Your task to perform on an android device: star an email in the gmail app Image 0: 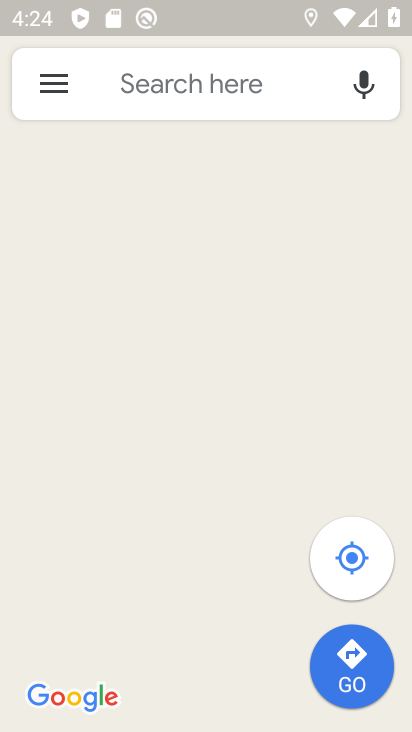
Step 0: press back button
Your task to perform on an android device: star an email in the gmail app Image 1: 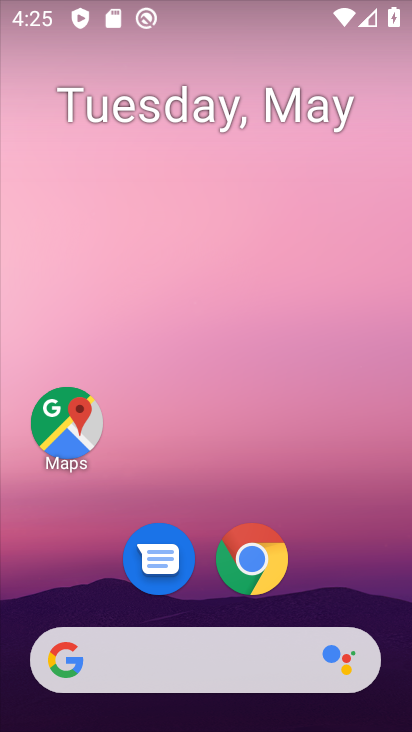
Step 1: drag from (65, 625) to (181, 74)
Your task to perform on an android device: star an email in the gmail app Image 2: 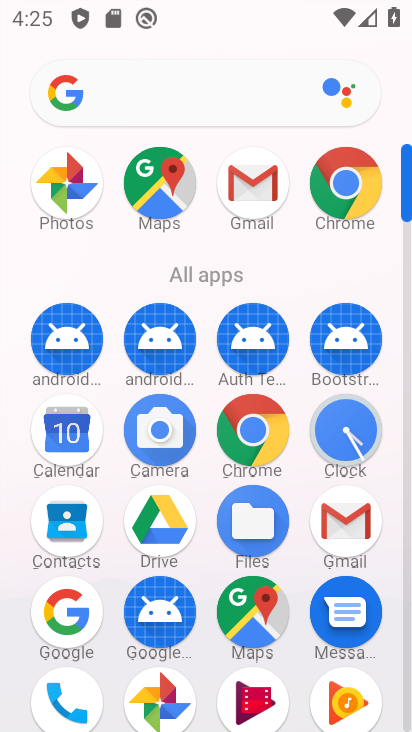
Step 2: click (341, 544)
Your task to perform on an android device: star an email in the gmail app Image 3: 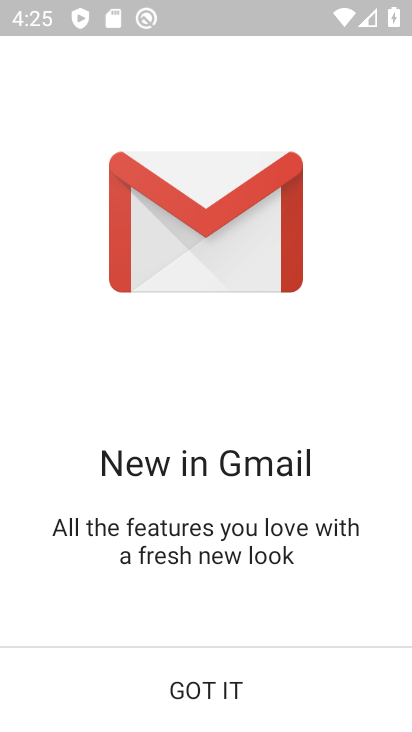
Step 3: click (213, 669)
Your task to perform on an android device: star an email in the gmail app Image 4: 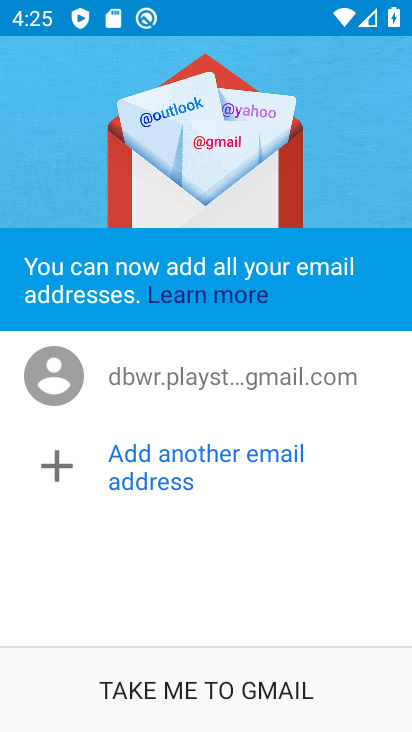
Step 4: click (222, 678)
Your task to perform on an android device: star an email in the gmail app Image 5: 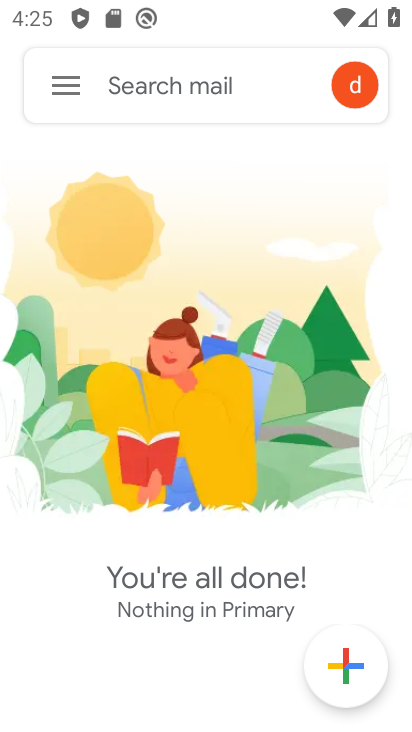
Step 5: click (83, 101)
Your task to perform on an android device: star an email in the gmail app Image 6: 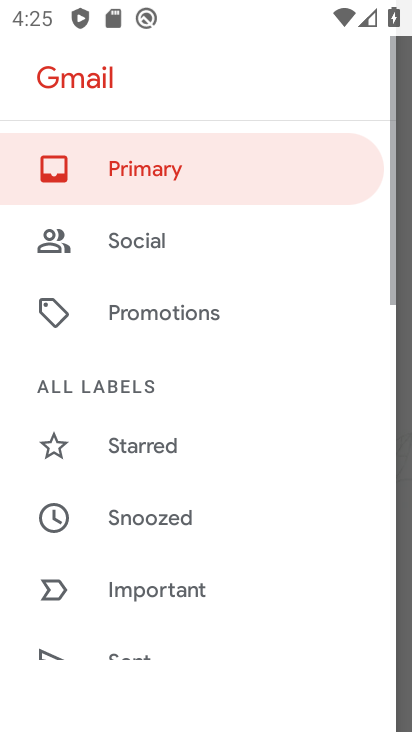
Step 6: drag from (150, 623) to (255, 312)
Your task to perform on an android device: star an email in the gmail app Image 7: 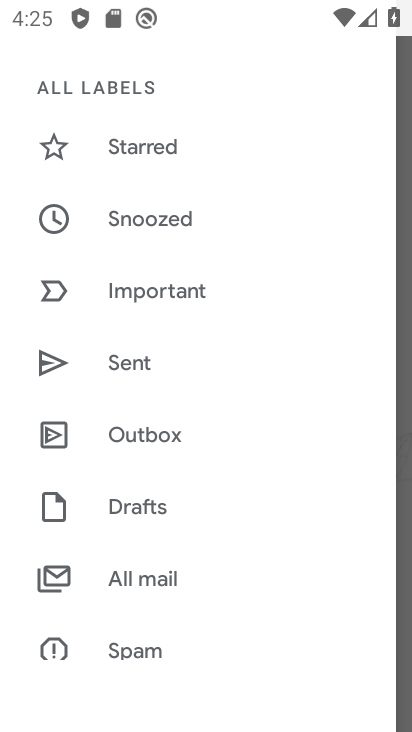
Step 7: click (186, 583)
Your task to perform on an android device: star an email in the gmail app Image 8: 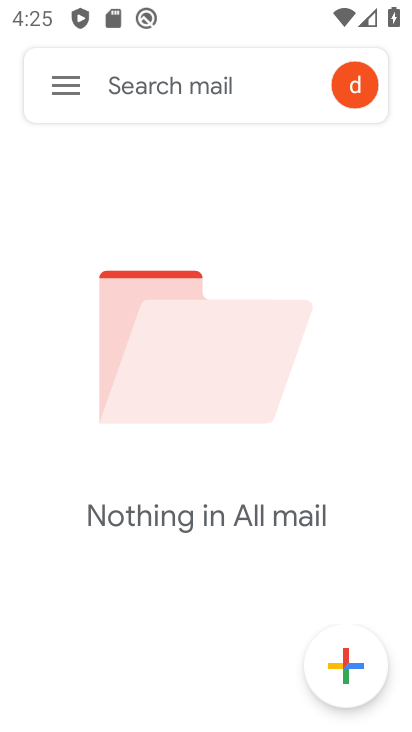
Step 8: task complete